Your task to perform on an android device: all mails in gmail Image 0: 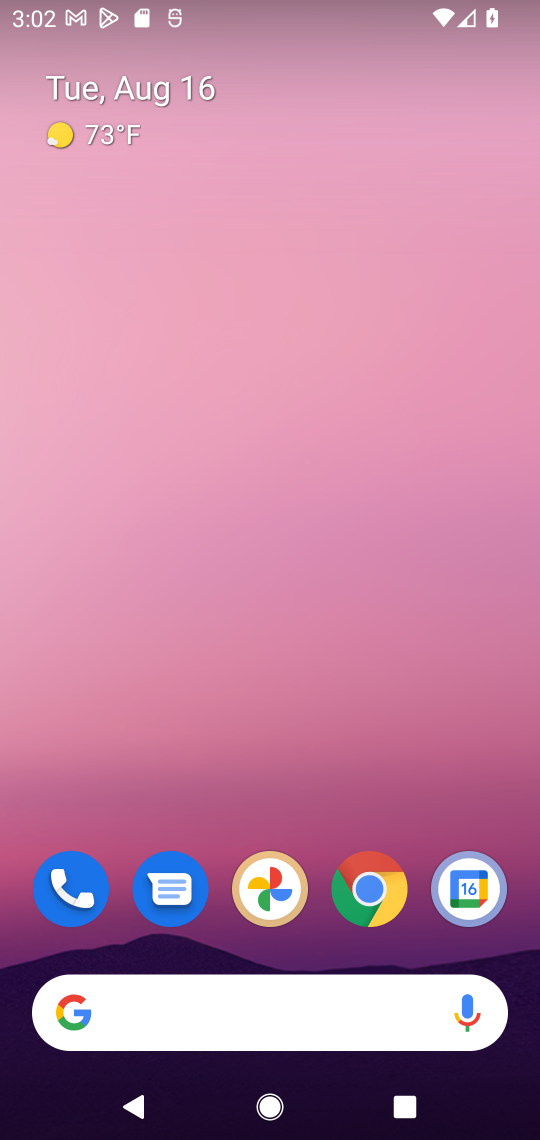
Step 0: drag from (253, 669) to (258, 107)
Your task to perform on an android device: all mails in gmail Image 1: 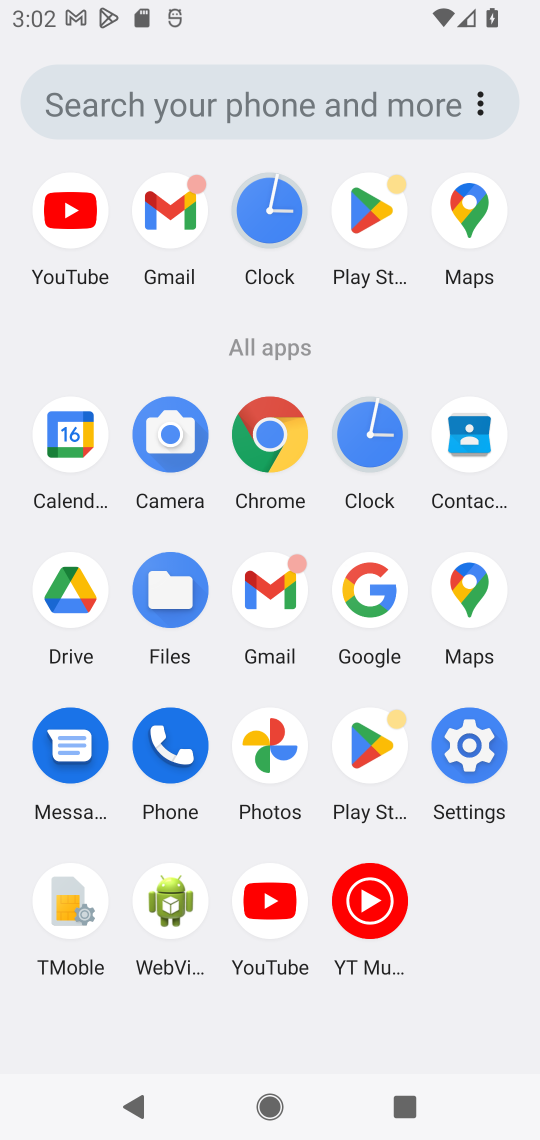
Step 1: click (163, 200)
Your task to perform on an android device: all mails in gmail Image 2: 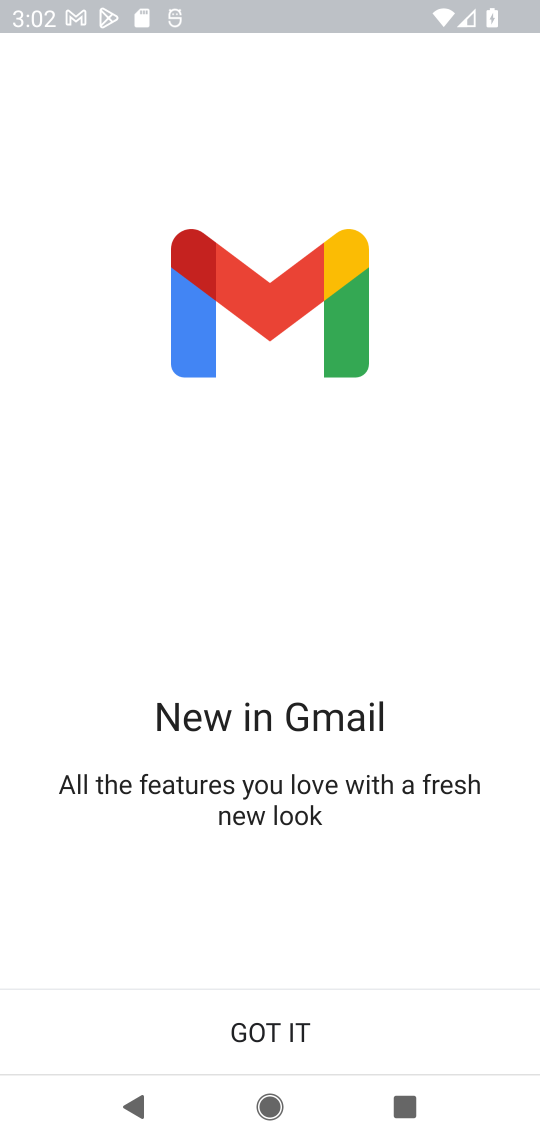
Step 2: click (267, 1024)
Your task to perform on an android device: all mails in gmail Image 3: 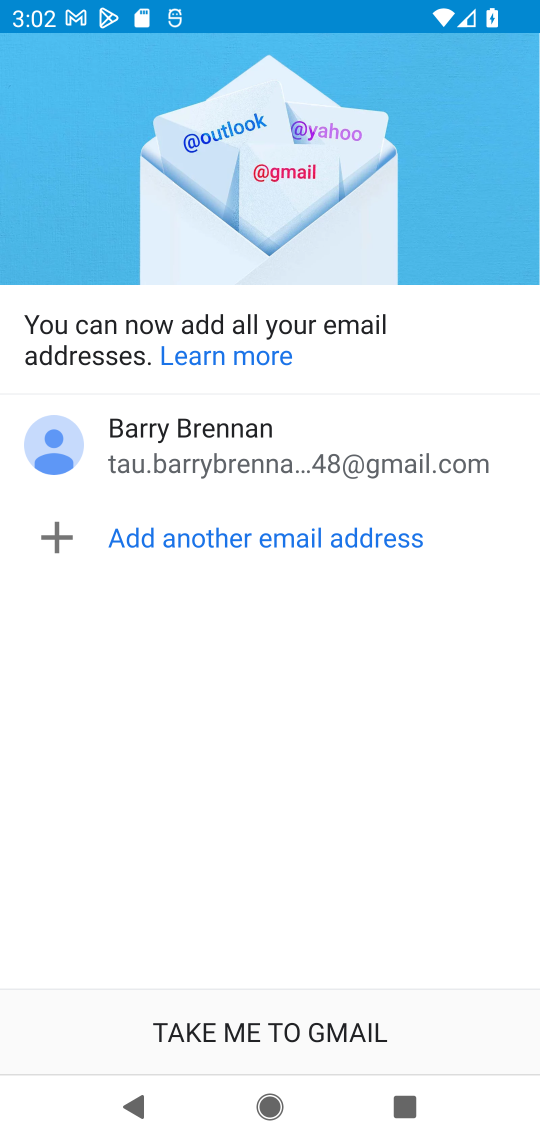
Step 3: click (254, 1042)
Your task to perform on an android device: all mails in gmail Image 4: 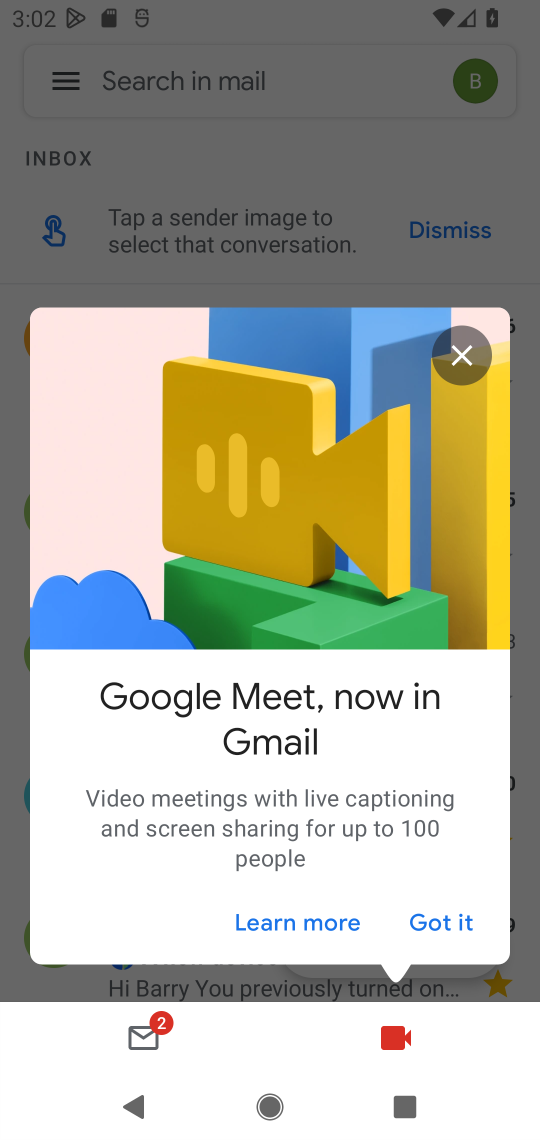
Step 4: task complete